Your task to perform on an android device: Go to CNN.com Image 0: 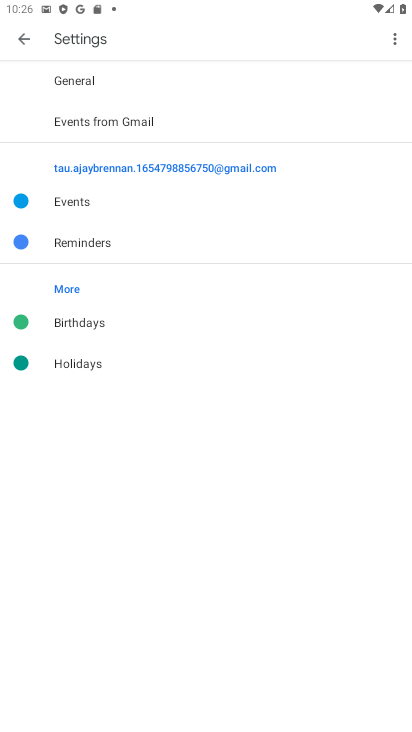
Step 0: press home button
Your task to perform on an android device: Go to CNN.com Image 1: 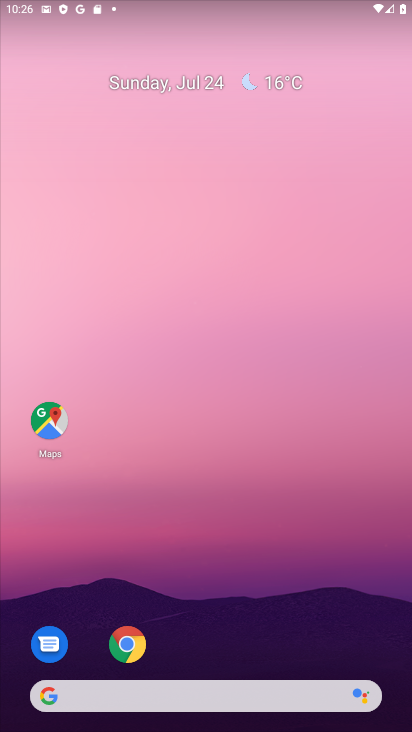
Step 1: click (127, 646)
Your task to perform on an android device: Go to CNN.com Image 2: 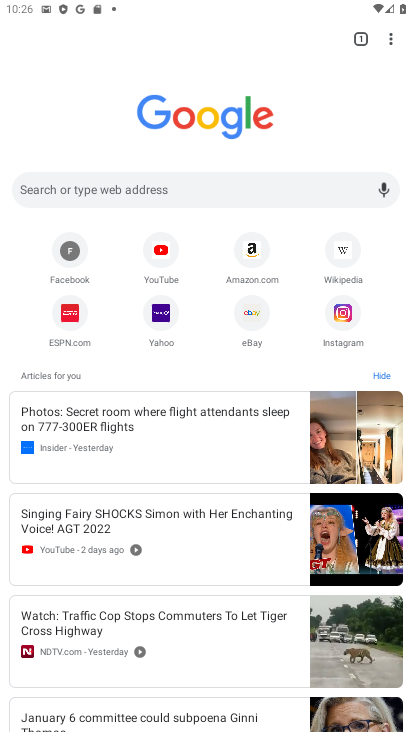
Step 2: click (180, 173)
Your task to perform on an android device: Go to CNN.com Image 3: 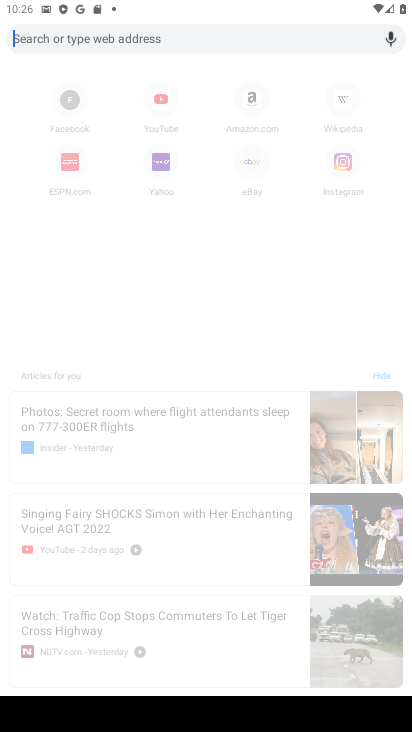
Step 3: type " CNN.com "
Your task to perform on an android device: Go to CNN.com Image 4: 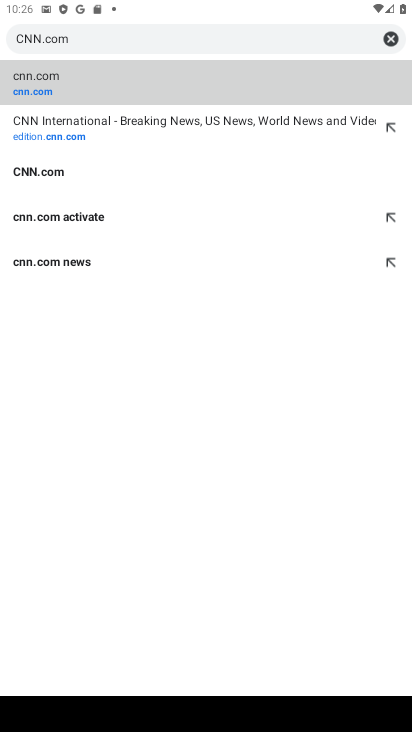
Step 4: click (281, 73)
Your task to perform on an android device: Go to CNN.com Image 5: 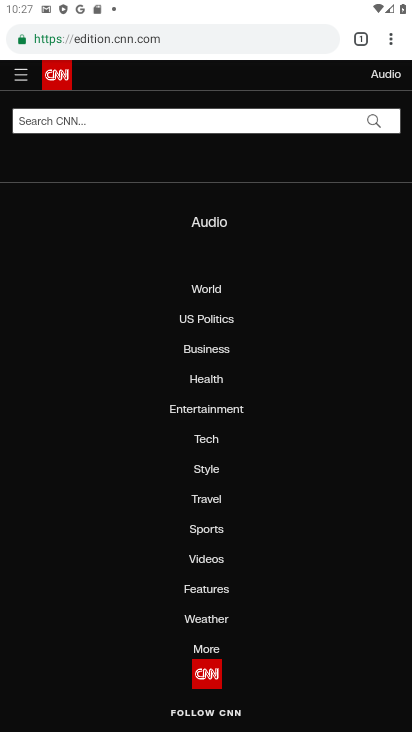
Step 5: task complete